Your task to perform on an android device: check android version Image 0: 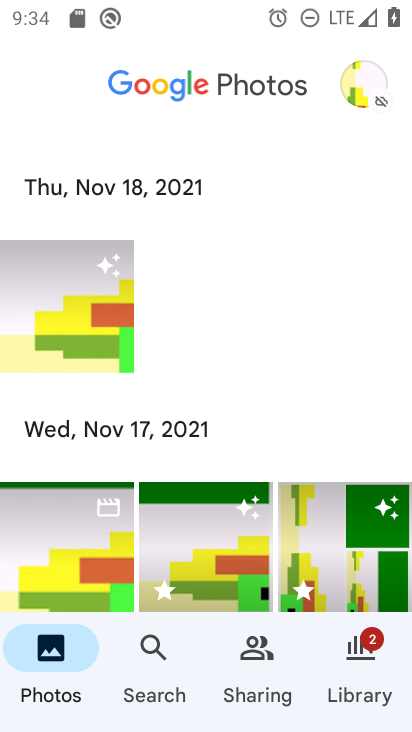
Step 0: press home button
Your task to perform on an android device: check android version Image 1: 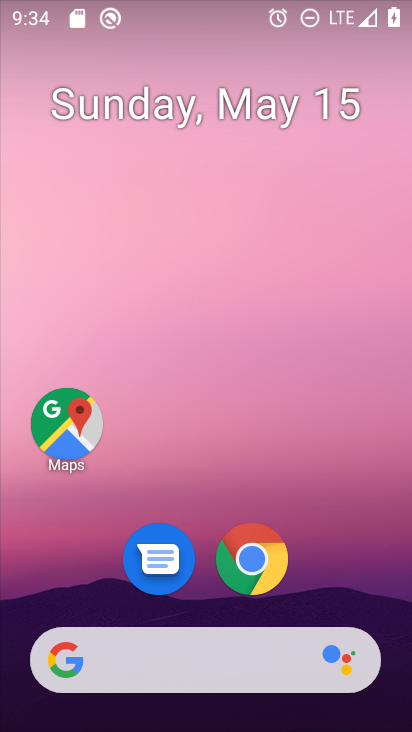
Step 1: drag from (369, 595) to (352, 135)
Your task to perform on an android device: check android version Image 2: 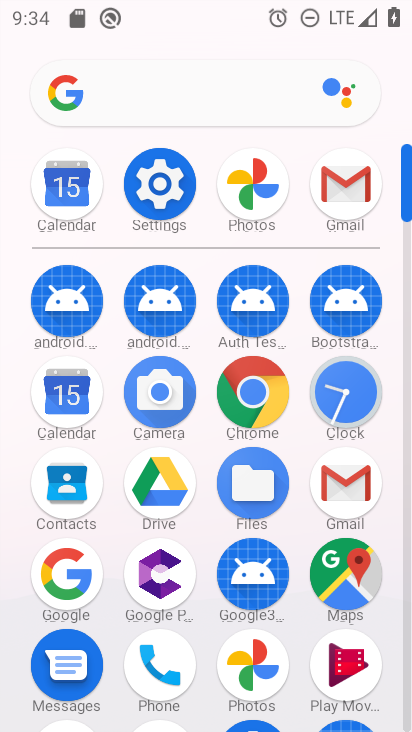
Step 2: click (165, 191)
Your task to perform on an android device: check android version Image 3: 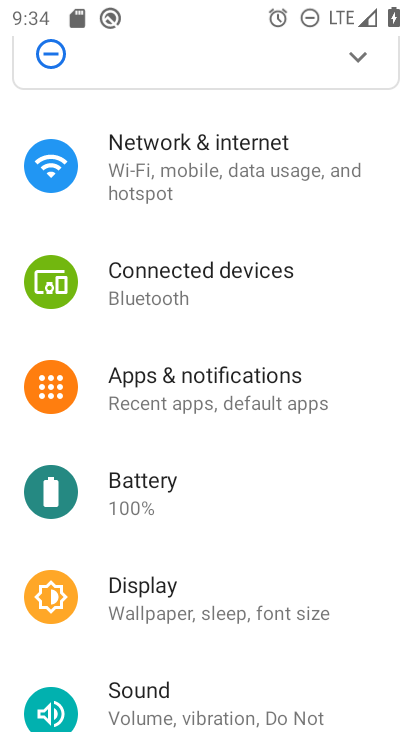
Step 3: drag from (166, 632) to (186, 216)
Your task to perform on an android device: check android version Image 4: 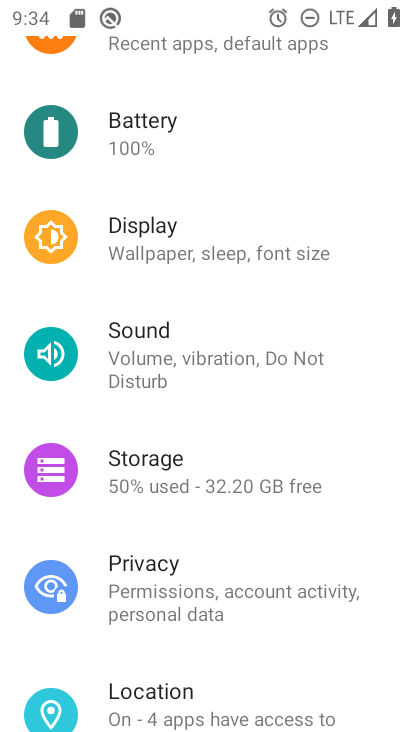
Step 4: drag from (247, 581) to (305, 210)
Your task to perform on an android device: check android version Image 5: 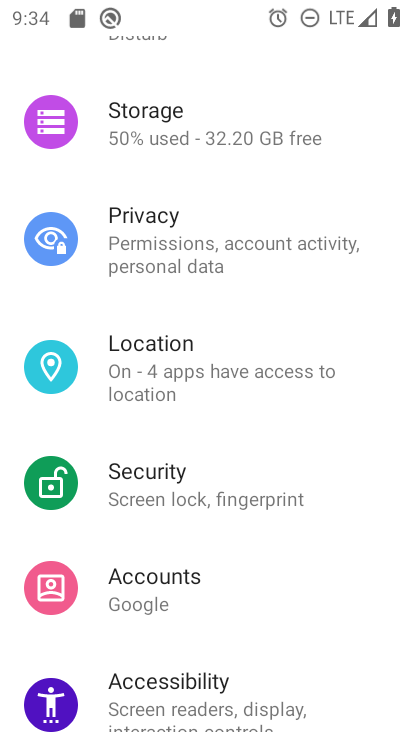
Step 5: drag from (264, 674) to (269, 296)
Your task to perform on an android device: check android version Image 6: 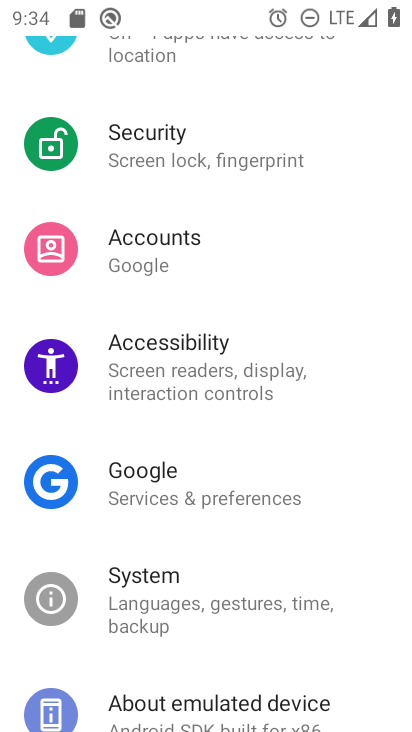
Step 6: click (256, 700)
Your task to perform on an android device: check android version Image 7: 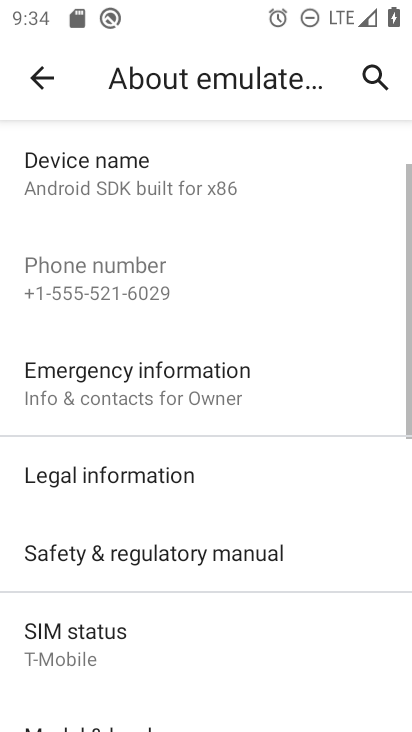
Step 7: drag from (256, 700) to (281, 245)
Your task to perform on an android device: check android version Image 8: 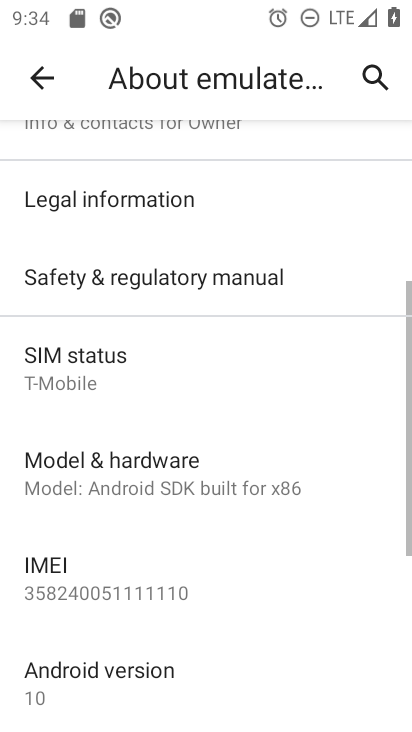
Step 8: click (235, 646)
Your task to perform on an android device: check android version Image 9: 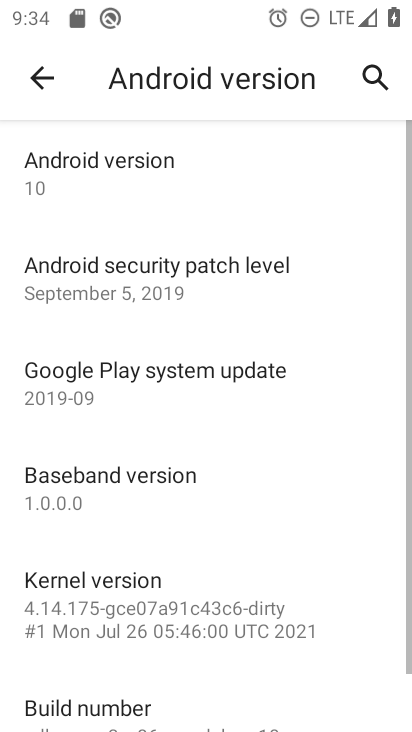
Step 9: task complete